Your task to perform on an android device: Open my contact list Image 0: 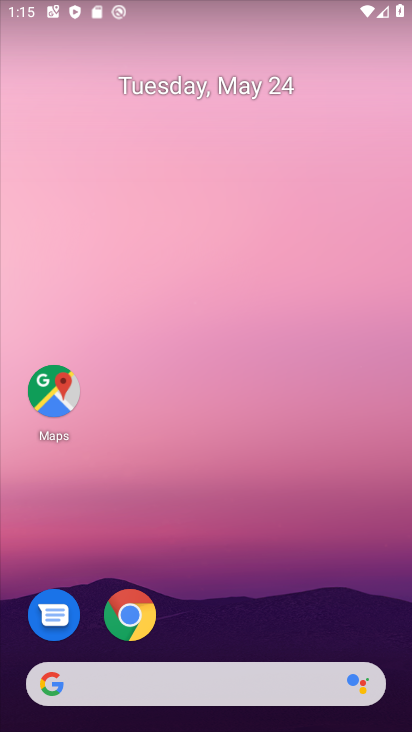
Step 0: drag from (175, 620) to (185, 137)
Your task to perform on an android device: Open my contact list Image 1: 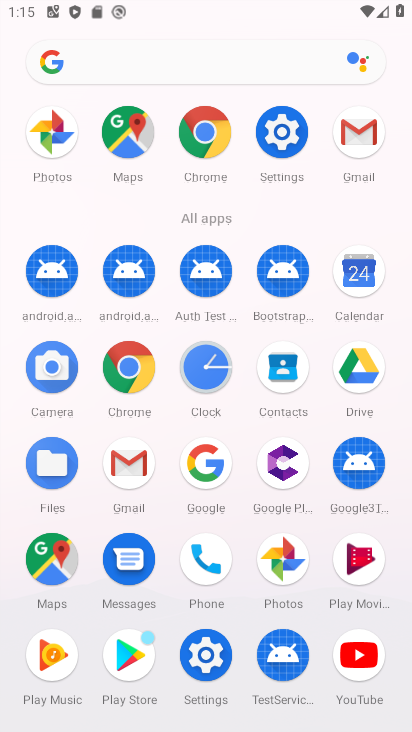
Step 1: click (259, 380)
Your task to perform on an android device: Open my contact list Image 2: 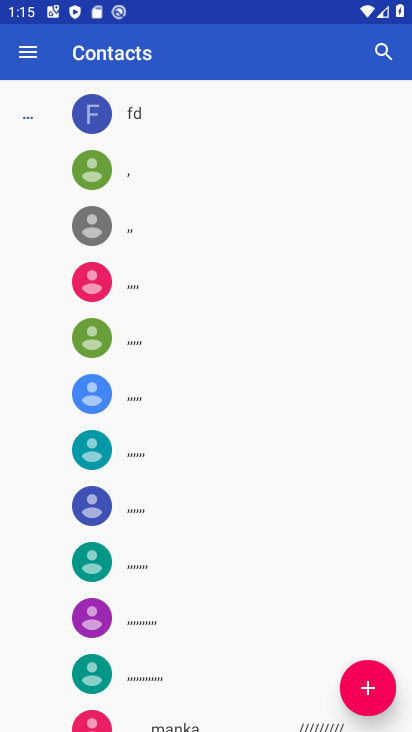
Step 2: task complete